Your task to perform on an android device: turn off data saver in the chrome app Image 0: 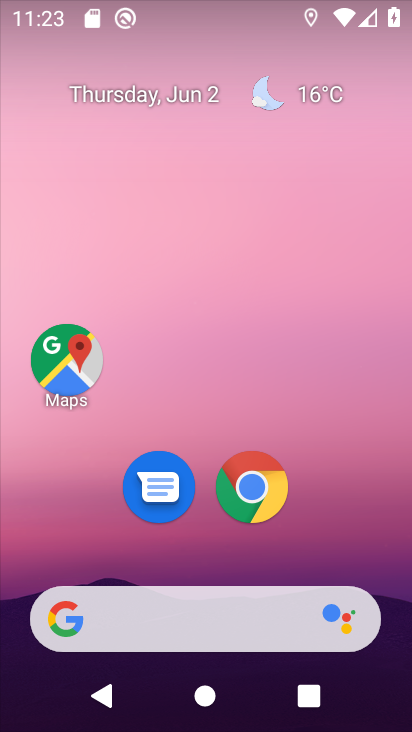
Step 0: click (251, 490)
Your task to perform on an android device: turn off data saver in the chrome app Image 1: 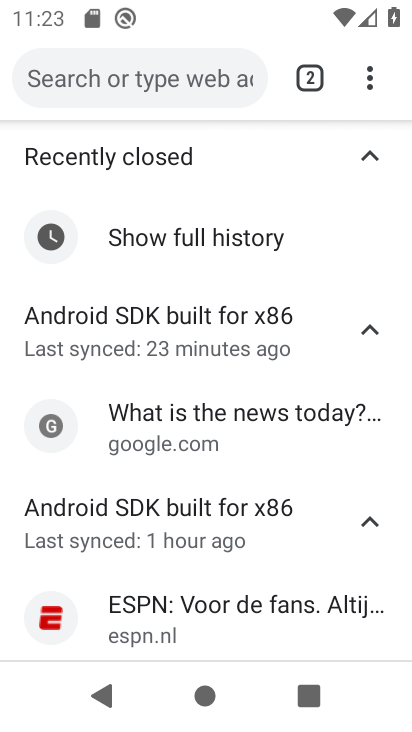
Step 1: click (370, 77)
Your task to perform on an android device: turn off data saver in the chrome app Image 2: 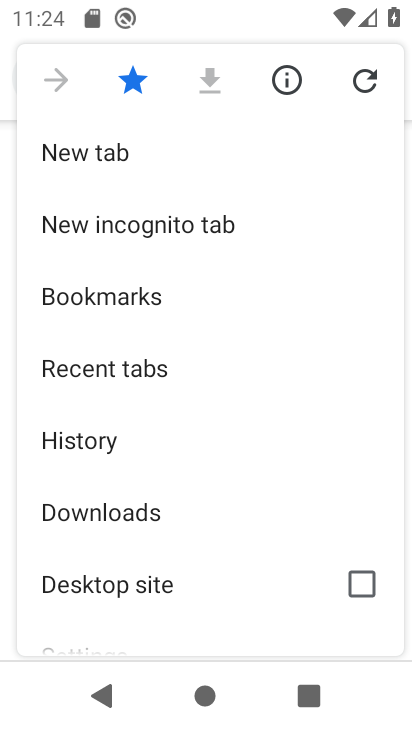
Step 2: drag from (135, 399) to (207, 318)
Your task to perform on an android device: turn off data saver in the chrome app Image 3: 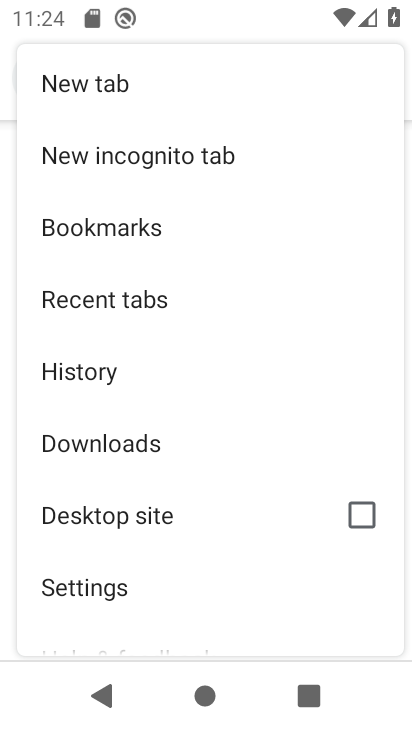
Step 3: drag from (99, 466) to (182, 366)
Your task to perform on an android device: turn off data saver in the chrome app Image 4: 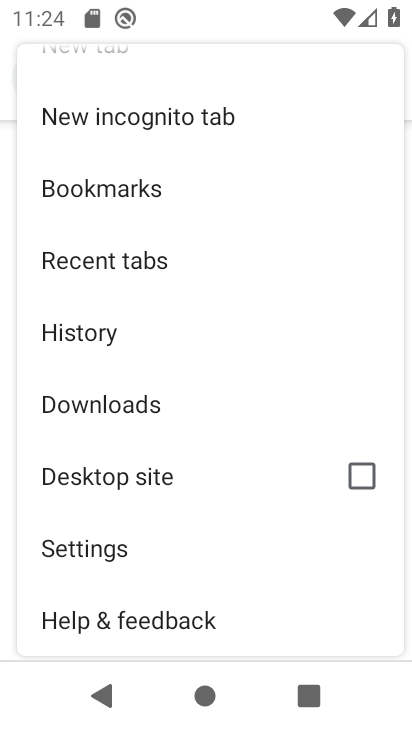
Step 4: click (81, 553)
Your task to perform on an android device: turn off data saver in the chrome app Image 5: 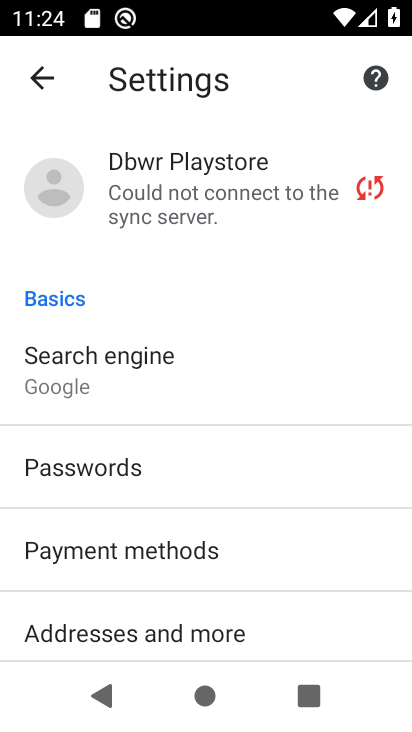
Step 5: drag from (167, 468) to (224, 367)
Your task to perform on an android device: turn off data saver in the chrome app Image 6: 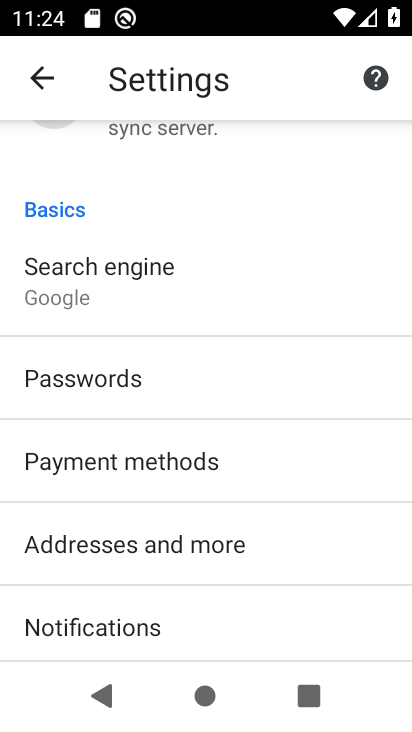
Step 6: drag from (130, 525) to (238, 403)
Your task to perform on an android device: turn off data saver in the chrome app Image 7: 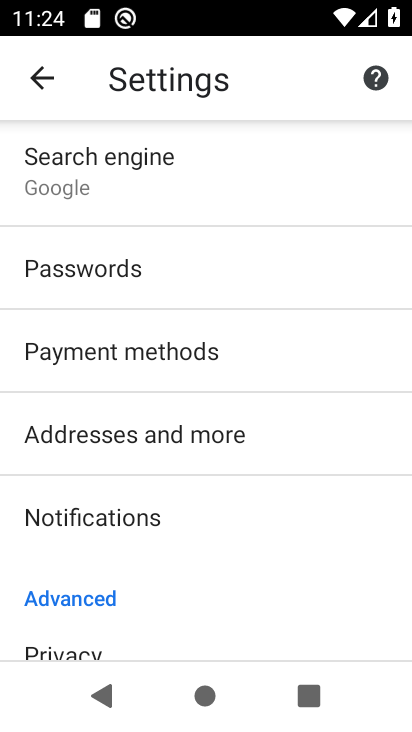
Step 7: drag from (138, 535) to (238, 419)
Your task to perform on an android device: turn off data saver in the chrome app Image 8: 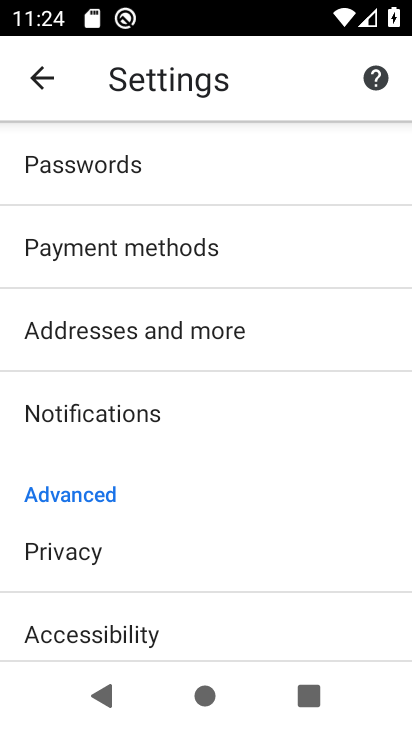
Step 8: drag from (134, 535) to (240, 415)
Your task to perform on an android device: turn off data saver in the chrome app Image 9: 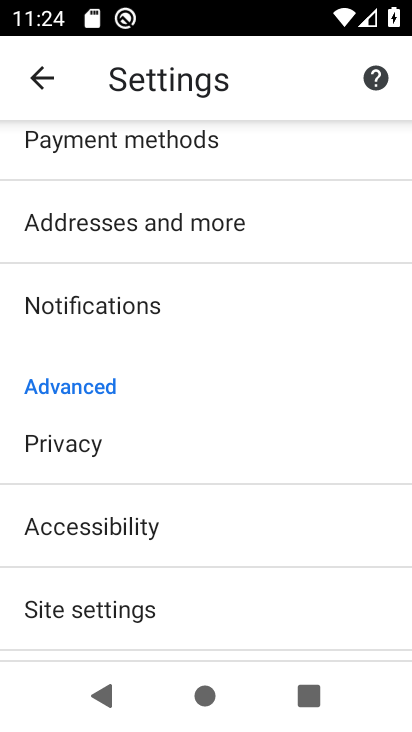
Step 9: drag from (185, 527) to (253, 428)
Your task to perform on an android device: turn off data saver in the chrome app Image 10: 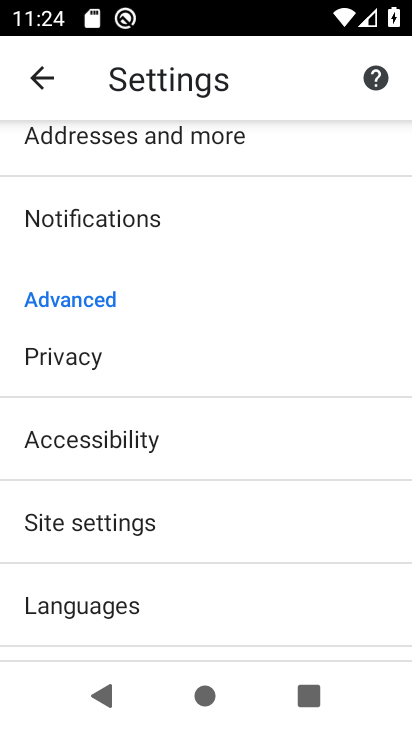
Step 10: drag from (142, 584) to (248, 472)
Your task to perform on an android device: turn off data saver in the chrome app Image 11: 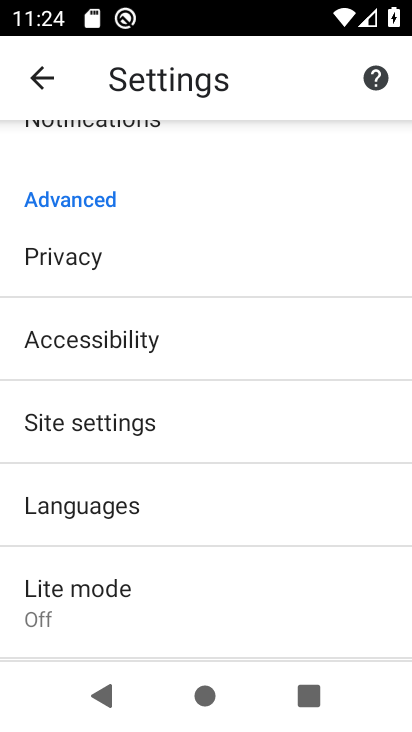
Step 11: click (127, 581)
Your task to perform on an android device: turn off data saver in the chrome app Image 12: 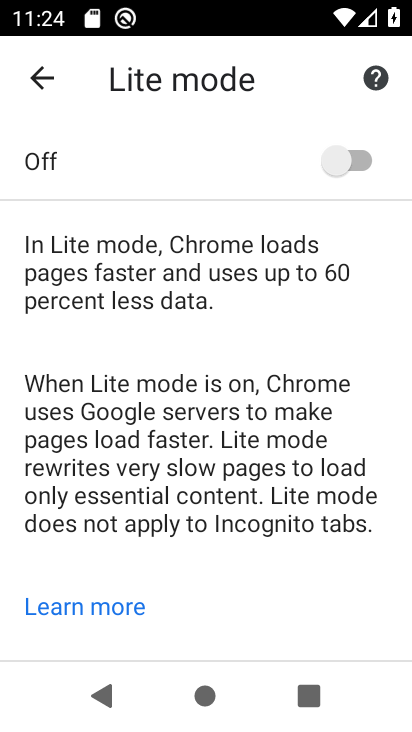
Step 12: task complete